Your task to perform on an android device: Open display settings Image 0: 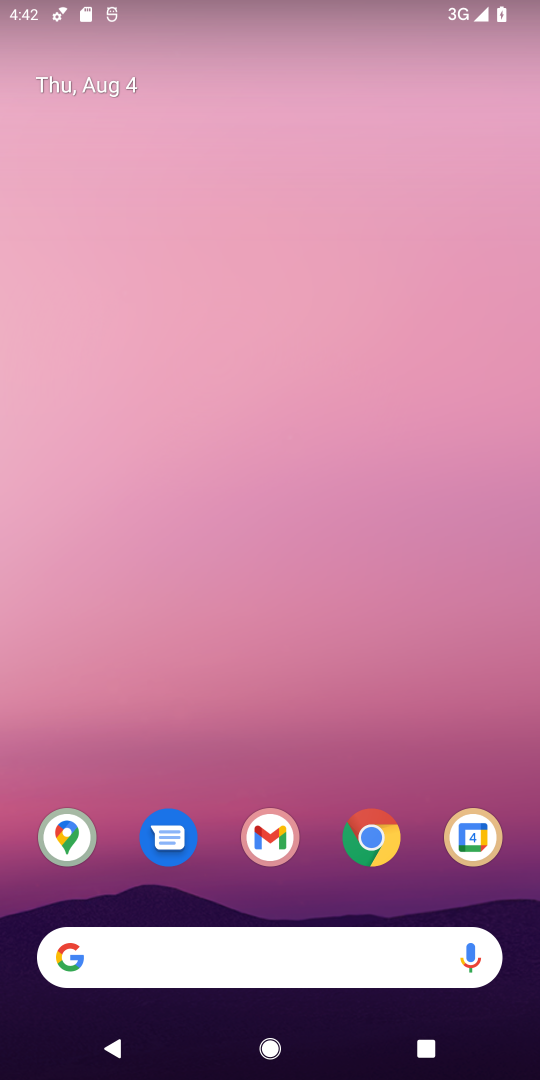
Step 0: drag from (222, 881) to (181, 454)
Your task to perform on an android device: Open display settings Image 1: 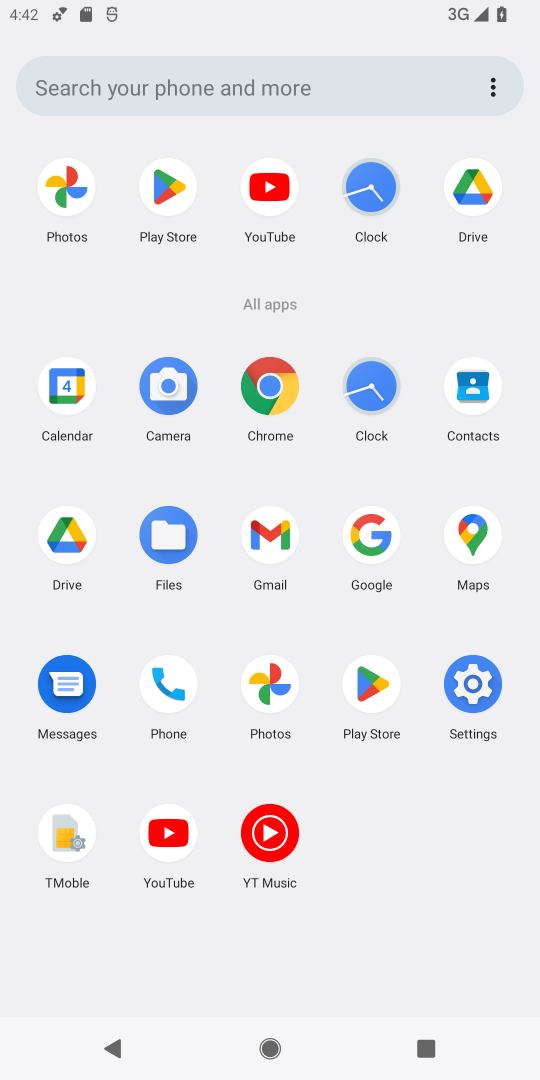
Step 1: click (479, 670)
Your task to perform on an android device: Open display settings Image 2: 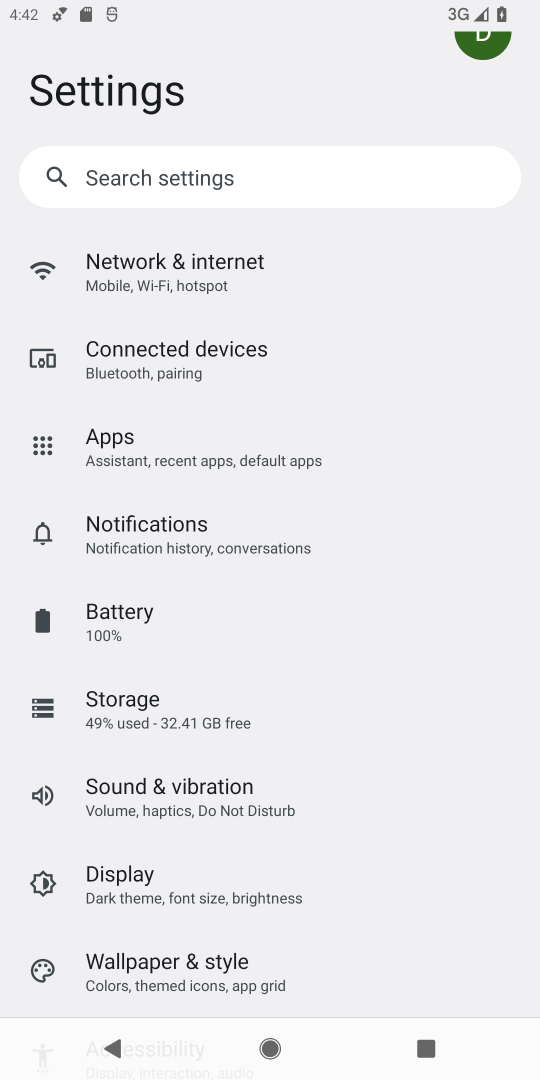
Step 2: click (196, 891)
Your task to perform on an android device: Open display settings Image 3: 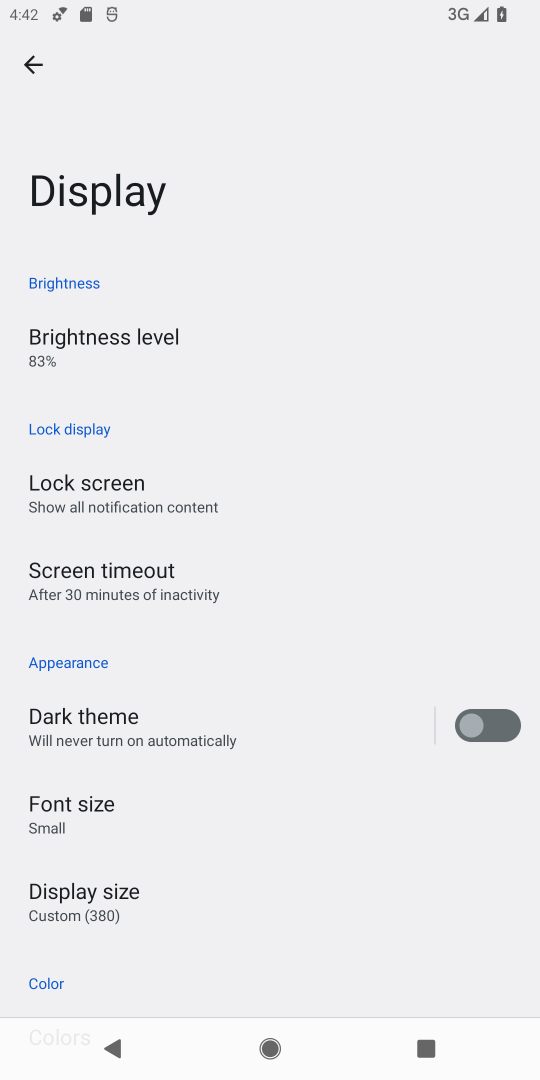
Step 3: task complete